Your task to perform on an android device: Open eBay Image 0: 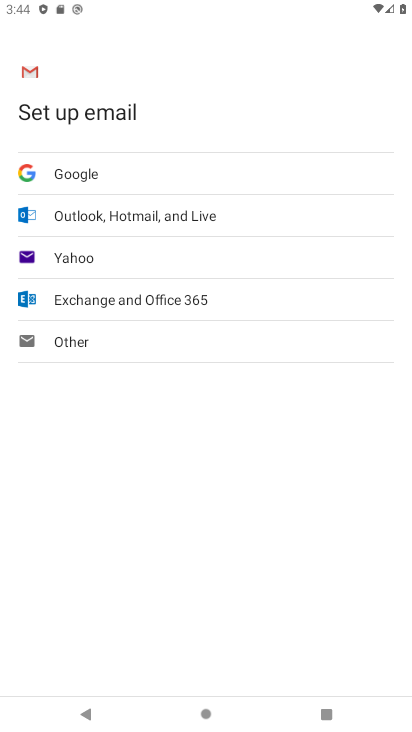
Step 0: press home button
Your task to perform on an android device: Open eBay Image 1: 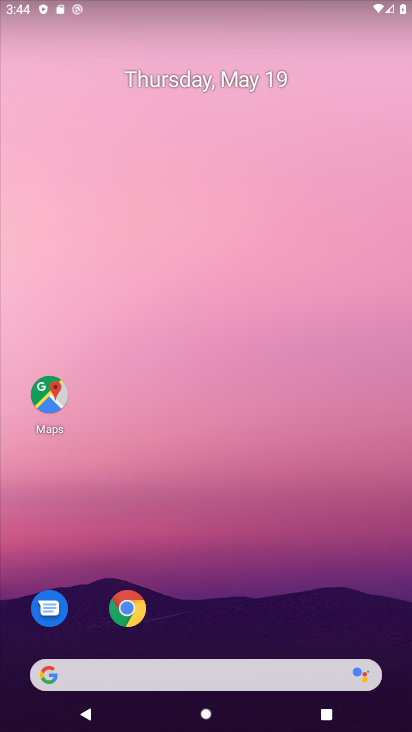
Step 1: click (127, 612)
Your task to perform on an android device: Open eBay Image 2: 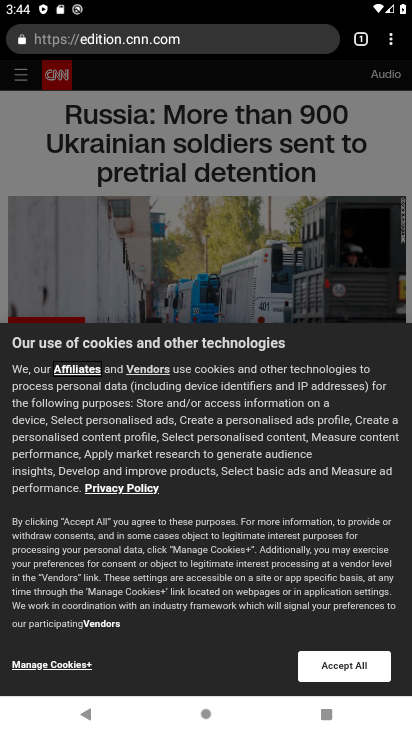
Step 2: click (393, 44)
Your task to perform on an android device: Open eBay Image 3: 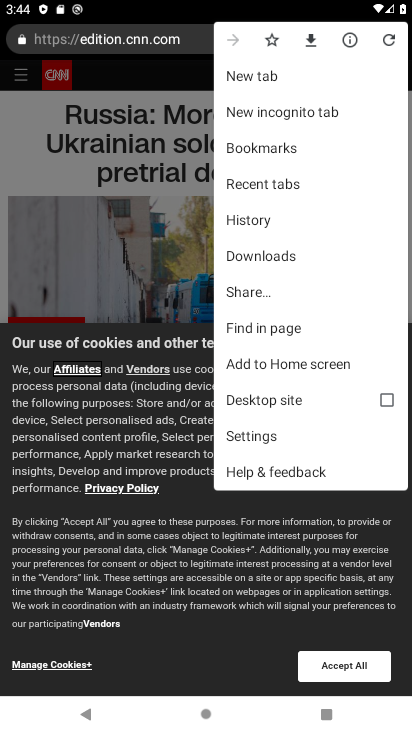
Step 3: click (233, 71)
Your task to perform on an android device: Open eBay Image 4: 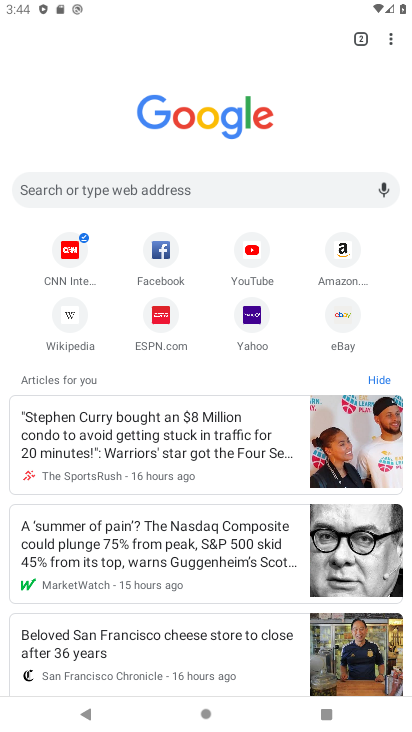
Step 4: click (341, 319)
Your task to perform on an android device: Open eBay Image 5: 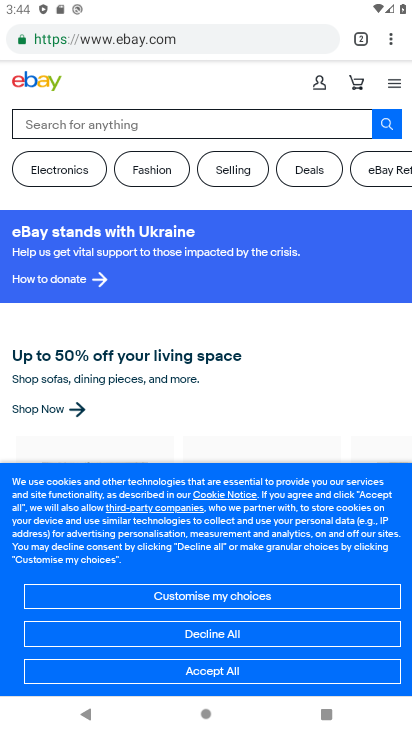
Step 5: task complete